Your task to perform on an android device: open device folders in google photos Image 0: 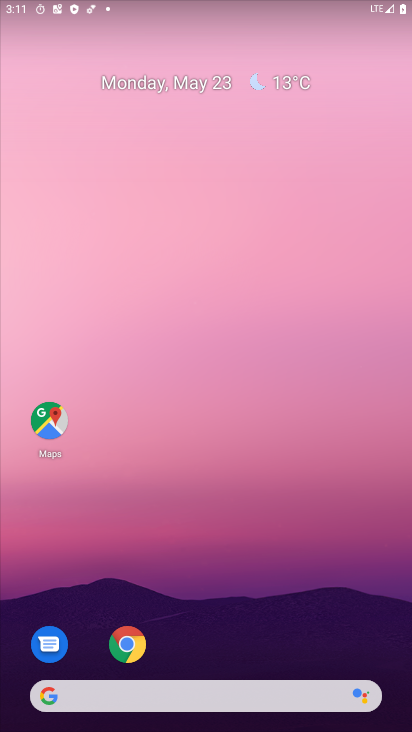
Step 0: drag from (211, 667) to (149, 9)
Your task to perform on an android device: open device folders in google photos Image 1: 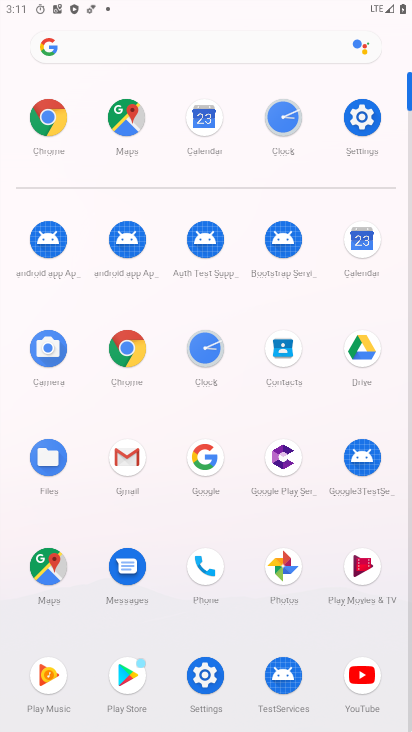
Step 1: click (282, 576)
Your task to perform on an android device: open device folders in google photos Image 2: 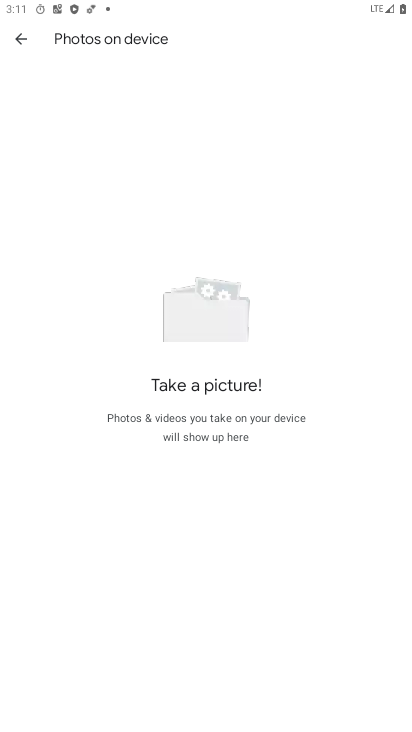
Step 2: click (6, 35)
Your task to perform on an android device: open device folders in google photos Image 3: 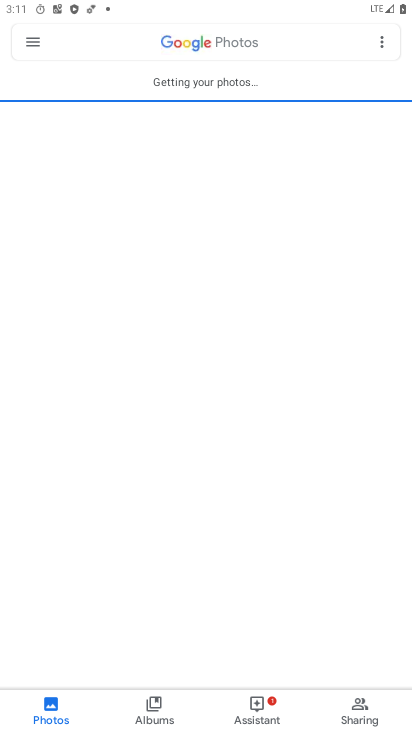
Step 3: click (37, 43)
Your task to perform on an android device: open device folders in google photos Image 4: 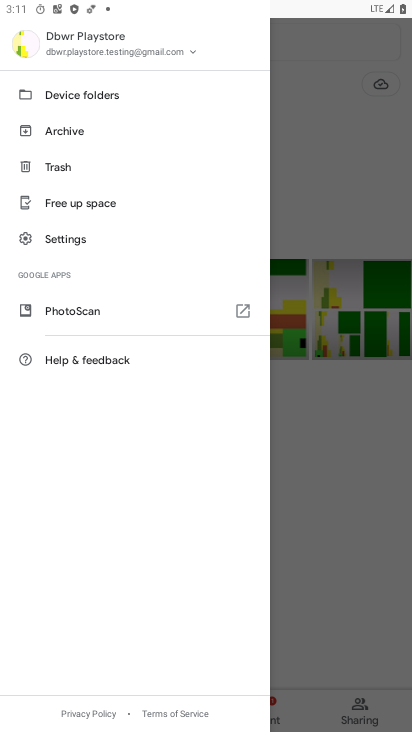
Step 4: click (65, 89)
Your task to perform on an android device: open device folders in google photos Image 5: 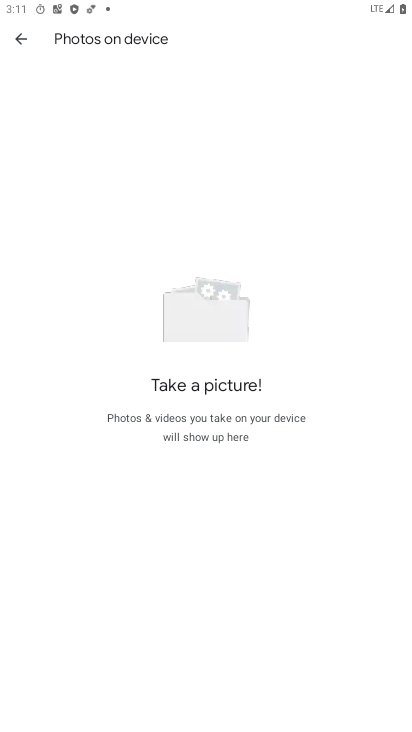
Step 5: task complete